Your task to perform on an android device: find photos in the google photos app Image 0: 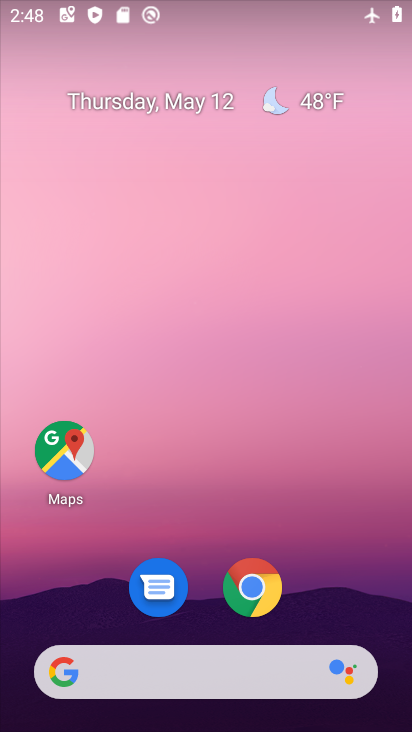
Step 0: drag from (272, 630) to (406, 16)
Your task to perform on an android device: find photos in the google photos app Image 1: 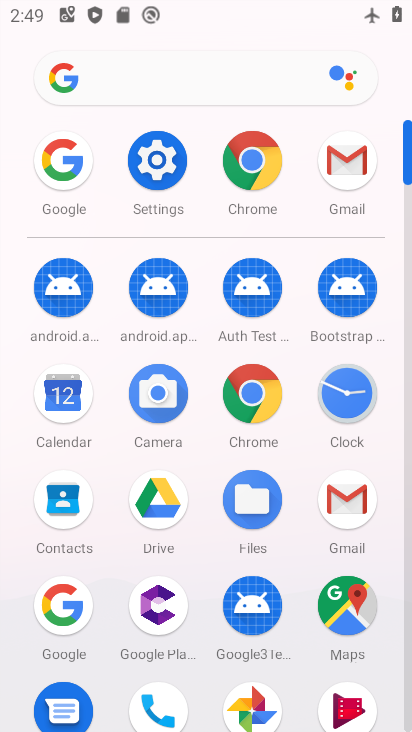
Step 1: drag from (300, 590) to (298, 414)
Your task to perform on an android device: find photos in the google photos app Image 2: 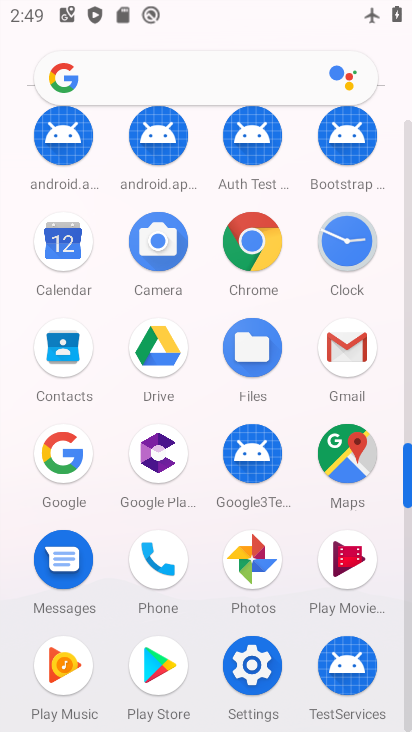
Step 2: click (253, 577)
Your task to perform on an android device: find photos in the google photos app Image 3: 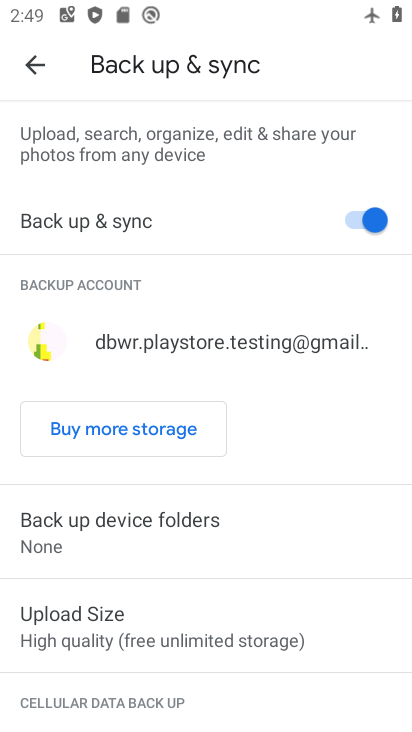
Step 3: drag from (246, 615) to (252, 688)
Your task to perform on an android device: find photos in the google photos app Image 4: 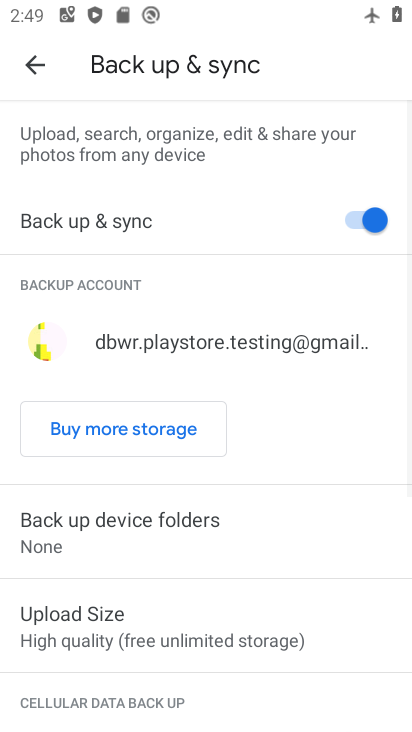
Step 4: click (35, 69)
Your task to perform on an android device: find photos in the google photos app Image 5: 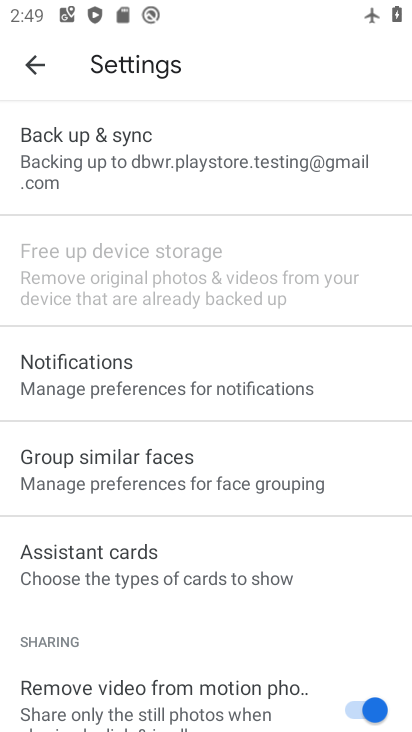
Step 5: click (43, 62)
Your task to perform on an android device: find photos in the google photos app Image 6: 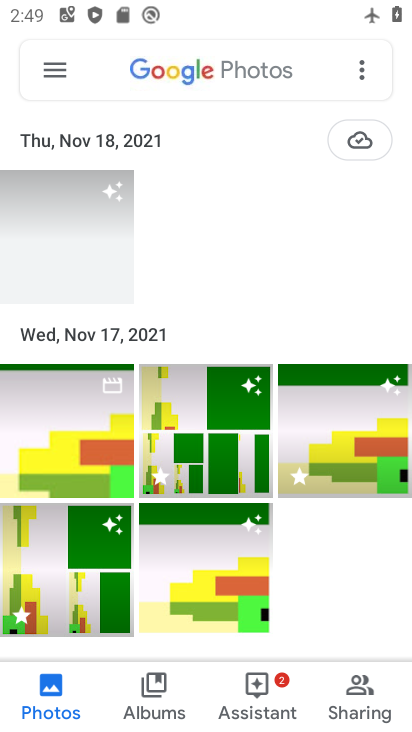
Step 6: task complete